Your task to perform on an android device: open app "Paramount+ | Peak Streaming" Image 0: 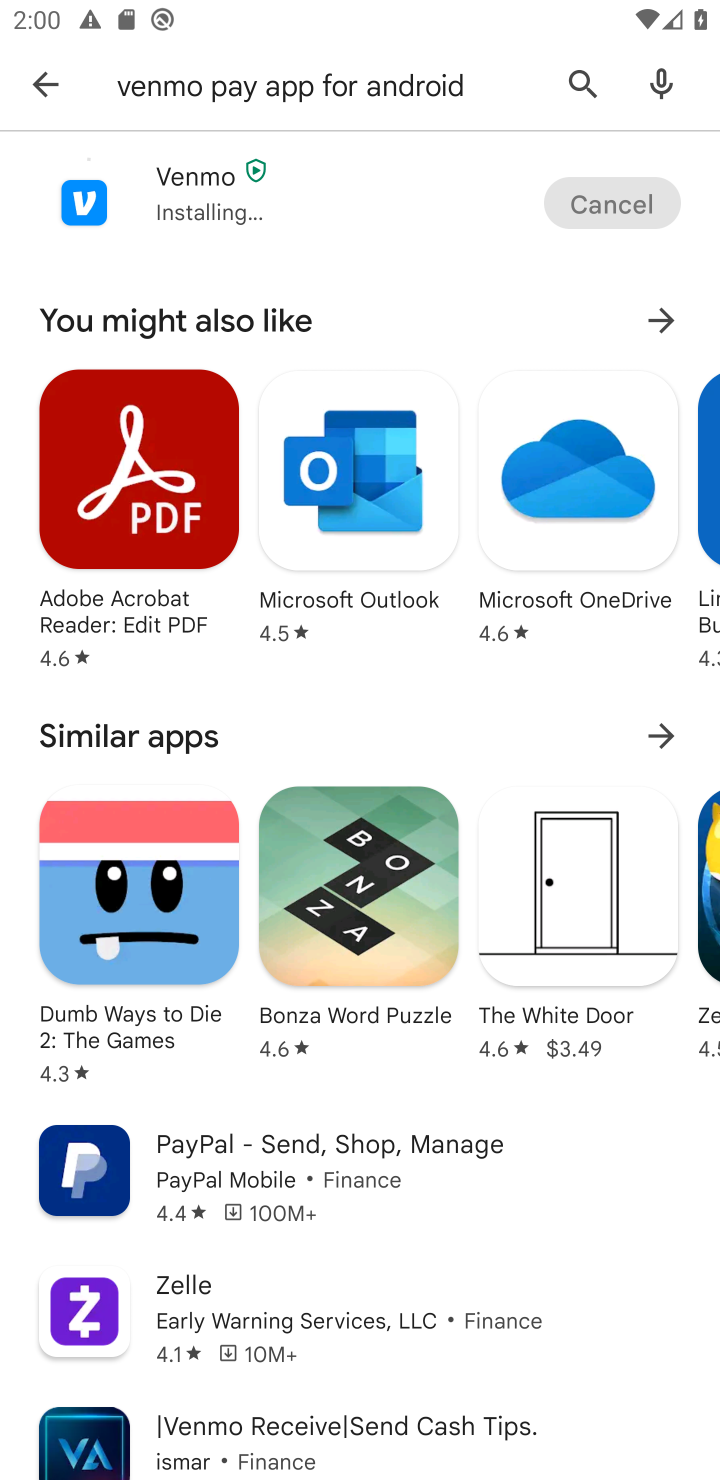
Step 0: click (594, 87)
Your task to perform on an android device: open app "Paramount+ | Peak Streaming" Image 1: 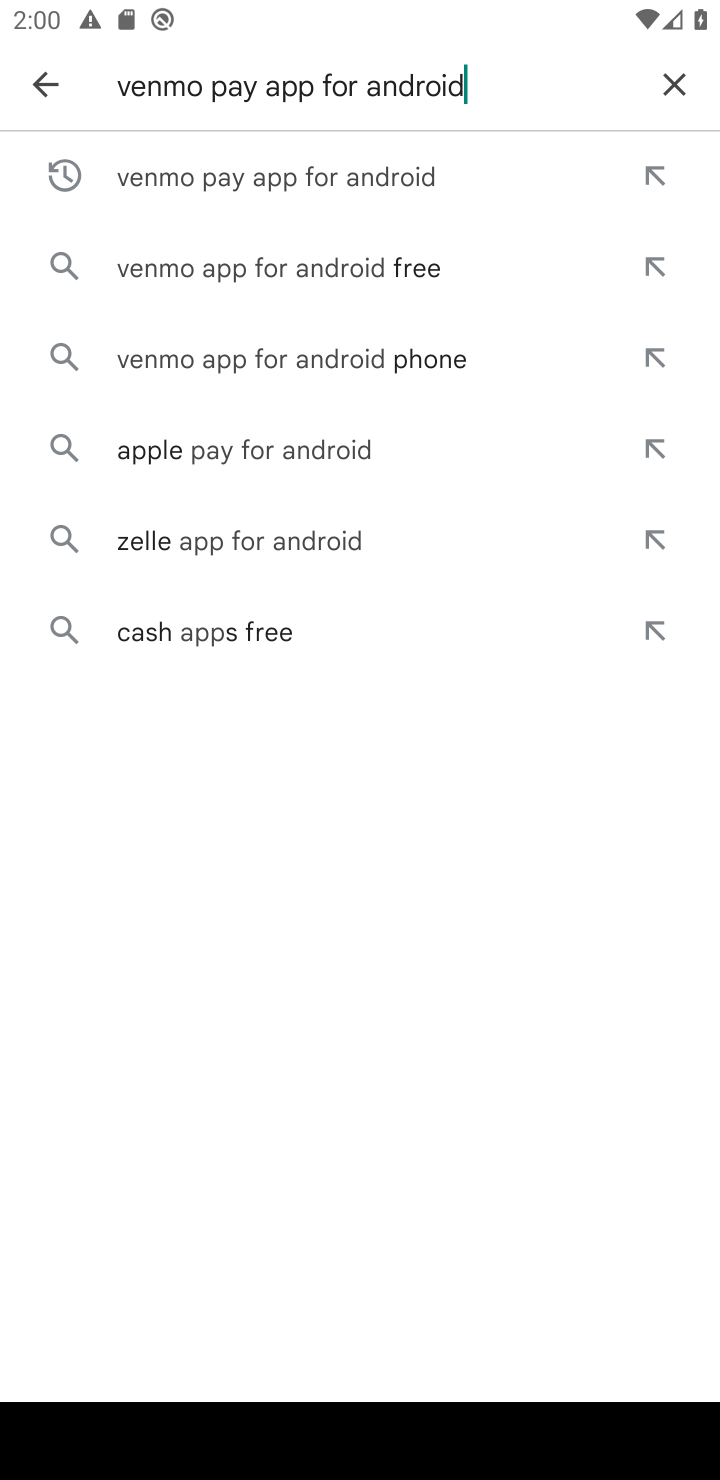
Step 1: click (673, 79)
Your task to perform on an android device: open app "Paramount+ | Peak Streaming" Image 2: 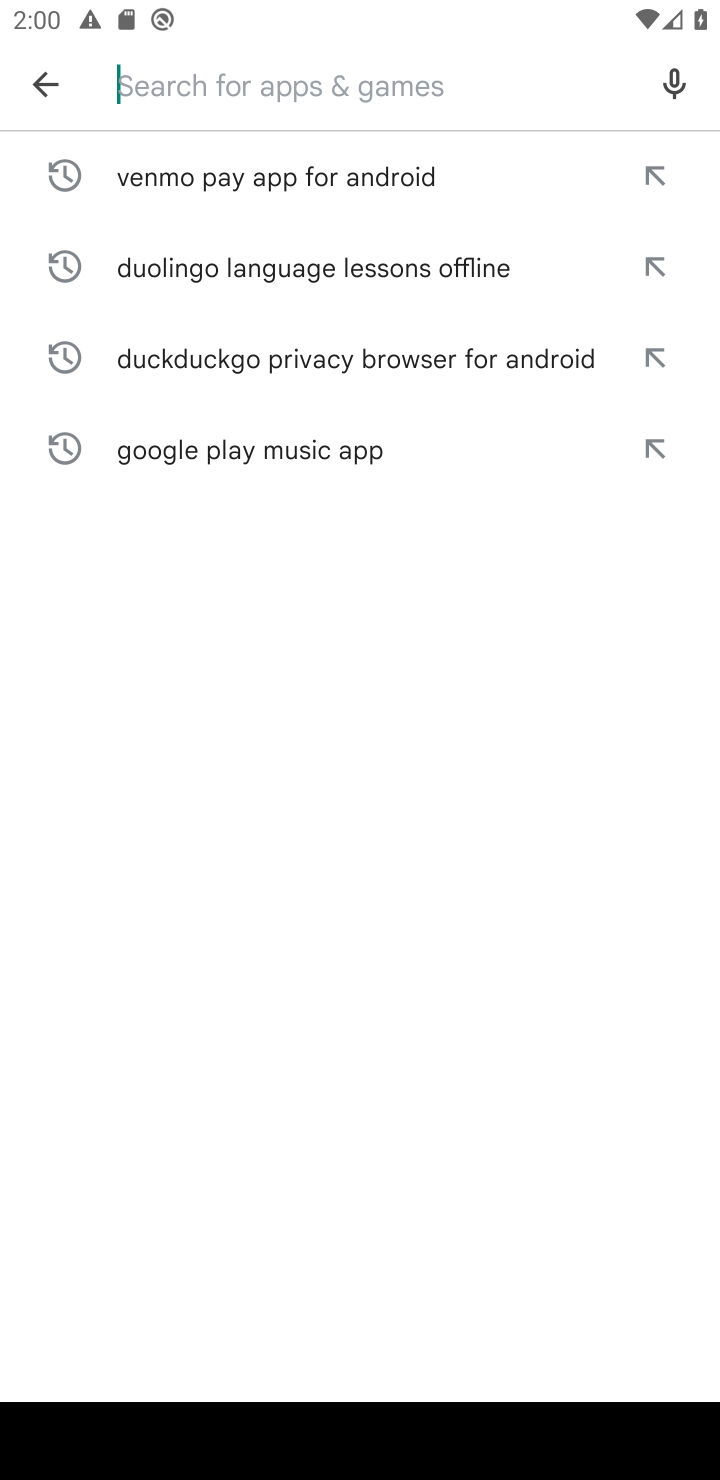
Step 2: click (428, 60)
Your task to perform on an android device: open app "Paramount+ | Peak Streaming" Image 3: 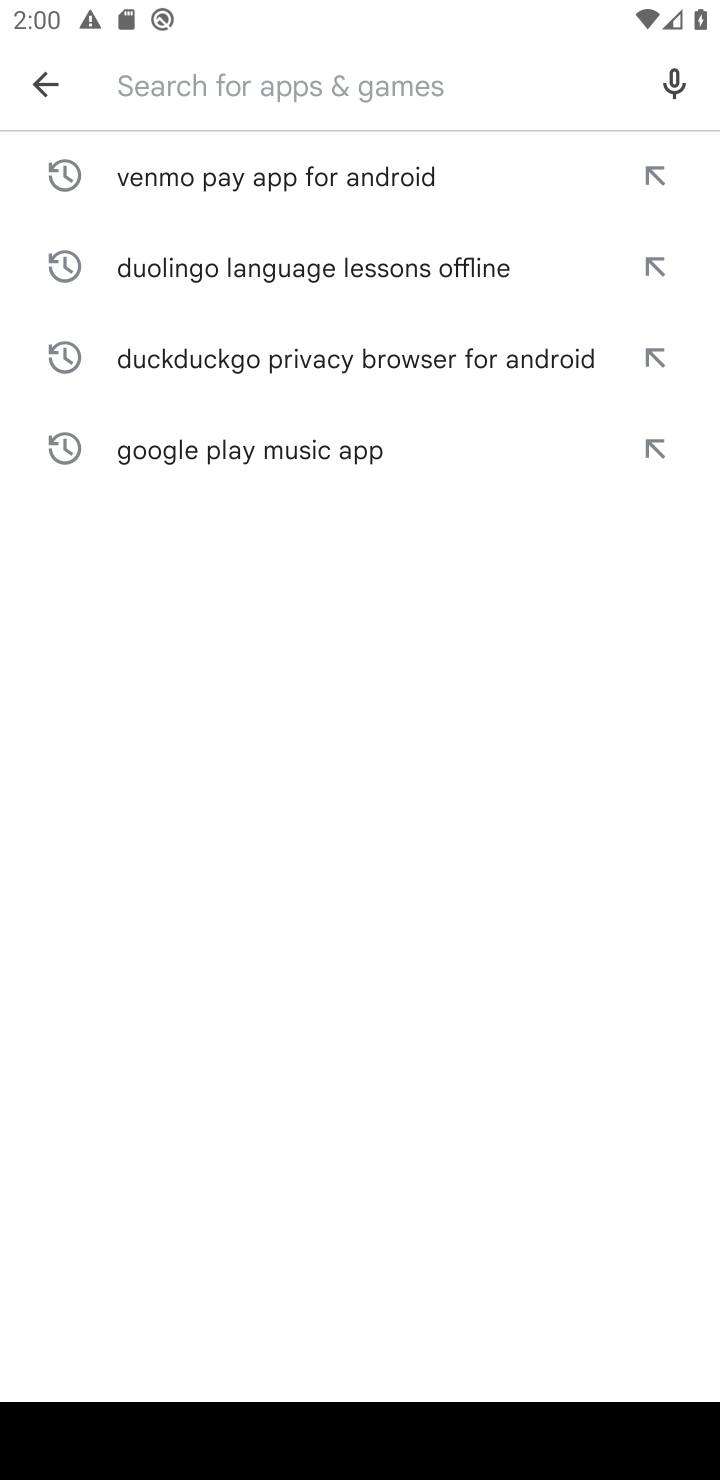
Step 3: type "Paramount+  "
Your task to perform on an android device: open app "Paramount+ | Peak Streaming" Image 4: 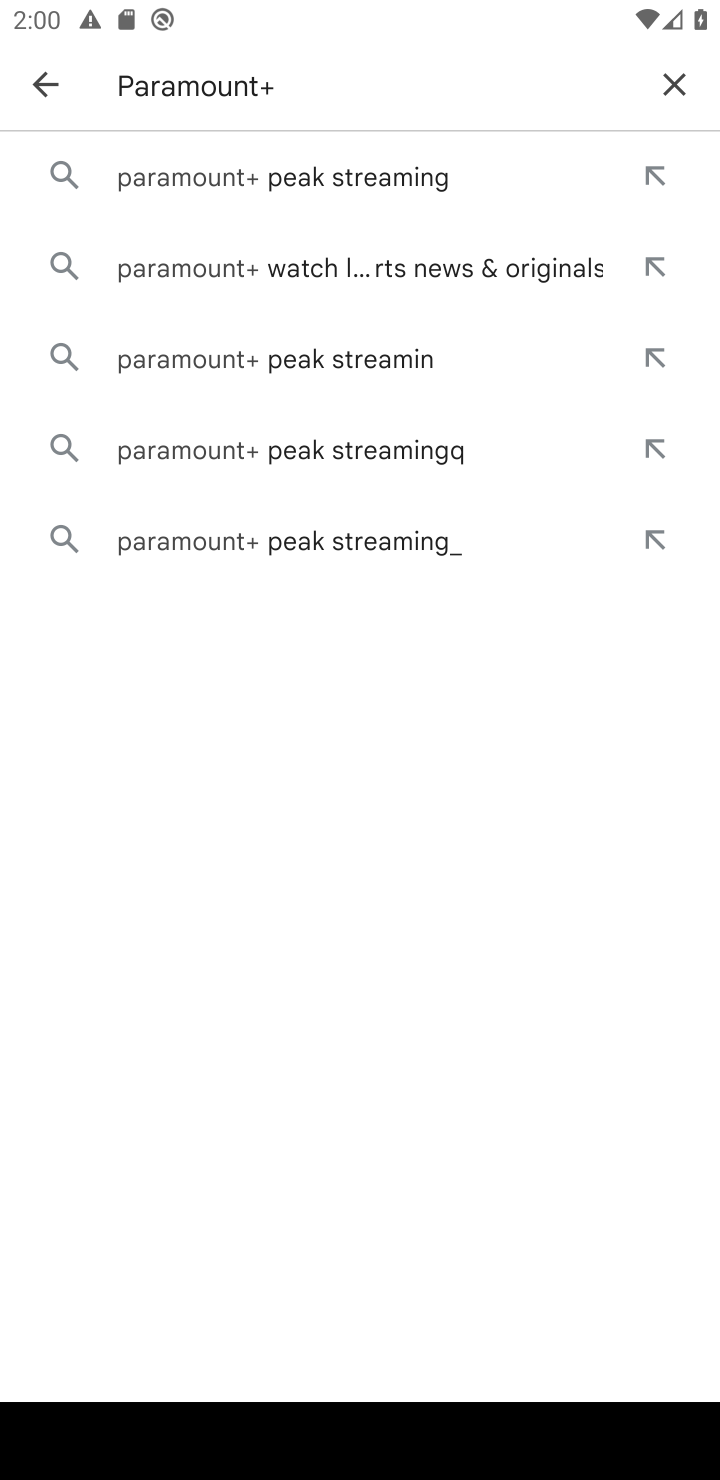
Step 4: click (396, 160)
Your task to perform on an android device: open app "Paramount+ | Peak Streaming" Image 5: 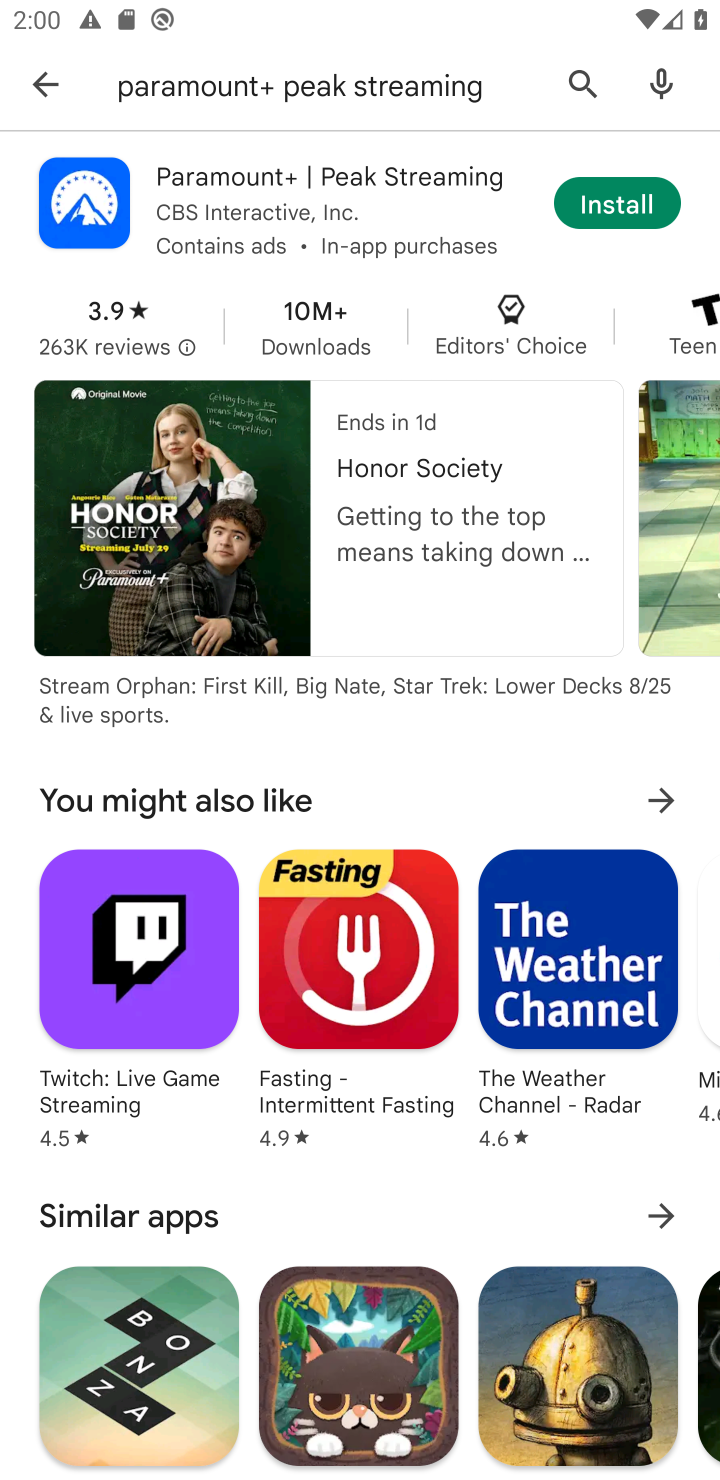
Step 5: click (619, 177)
Your task to perform on an android device: open app "Paramount+ | Peak Streaming" Image 6: 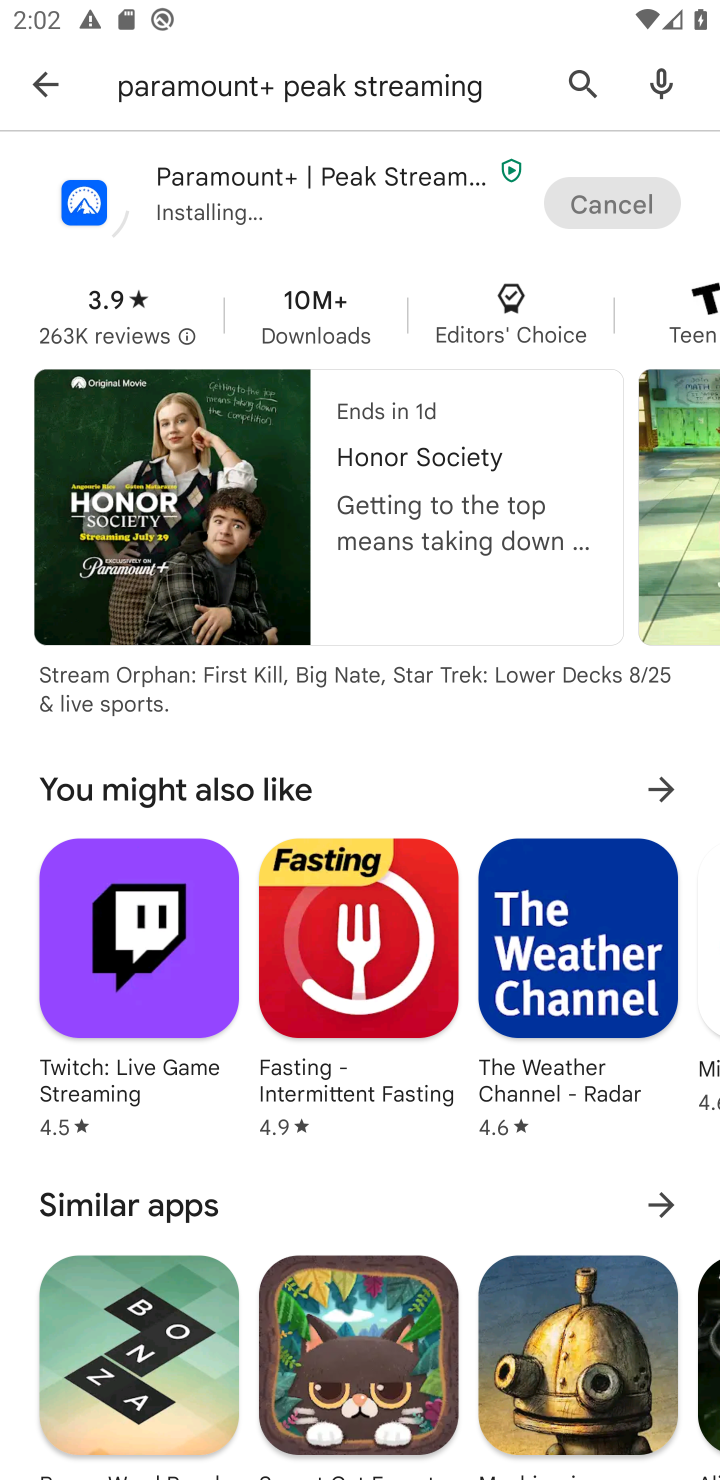
Step 6: task complete